Your task to perform on an android device: turn off smart reply in the gmail app Image 0: 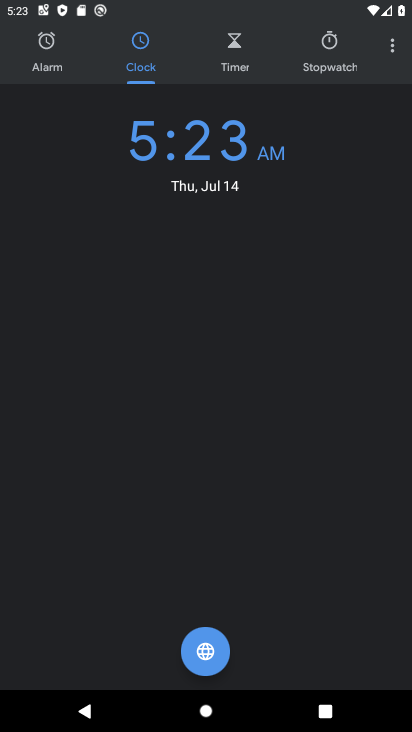
Step 0: press home button
Your task to perform on an android device: turn off smart reply in the gmail app Image 1: 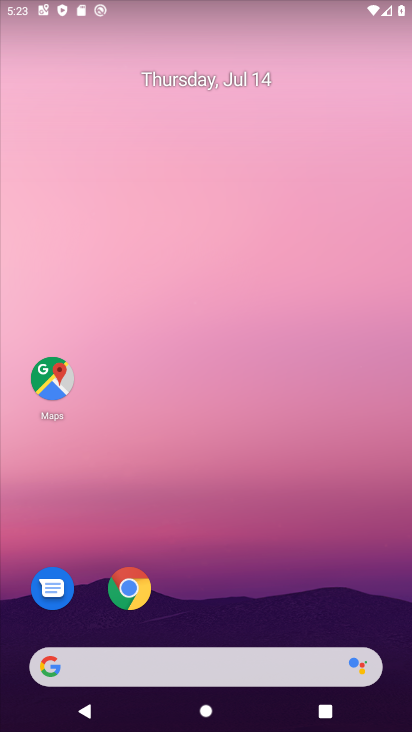
Step 1: drag from (168, 576) to (172, 286)
Your task to perform on an android device: turn off smart reply in the gmail app Image 2: 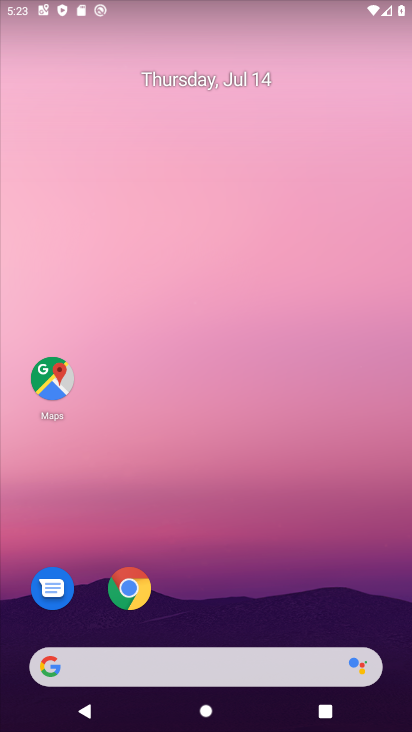
Step 2: drag from (248, 645) to (246, 296)
Your task to perform on an android device: turn off smart reply in the gmail app Image 3: 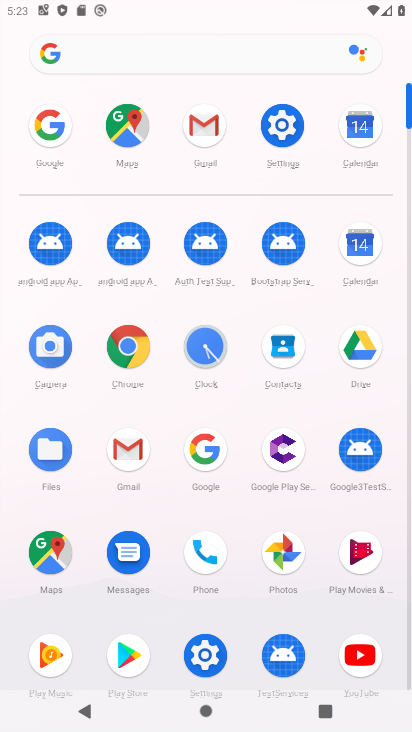
Step 3: click (197, 134)
Your task to perform on an android device: turn off smart reply in the gmail app Image 4: 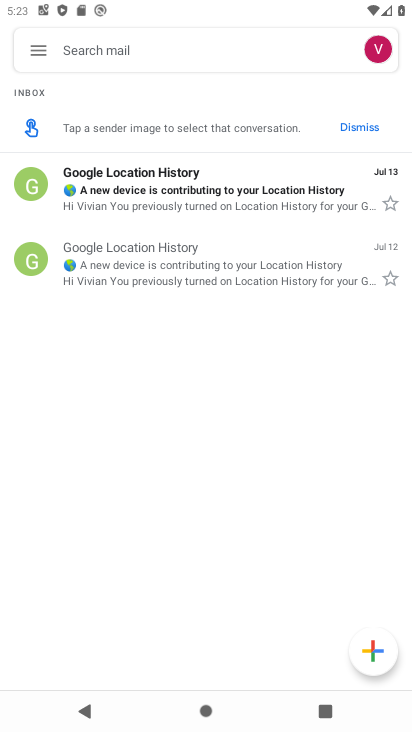
Step 4: click (41, 54)
Your task to perform on an android device: turn off smart reply in the gmail app Image 5: 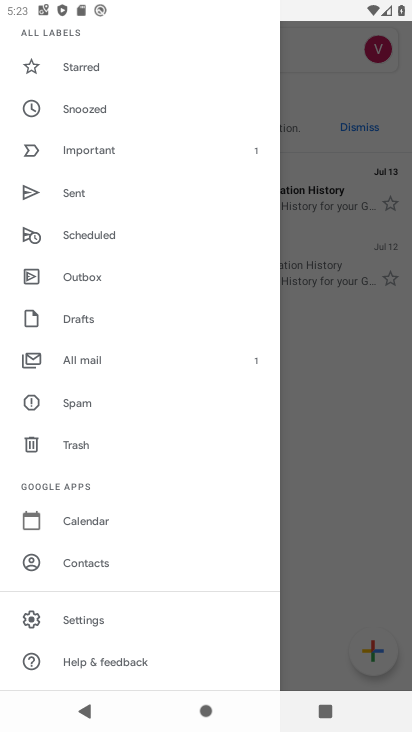
Step 5: click (91, 620)
Your task to perform on an android device: turn off smart reply in the gmail app Image 6: 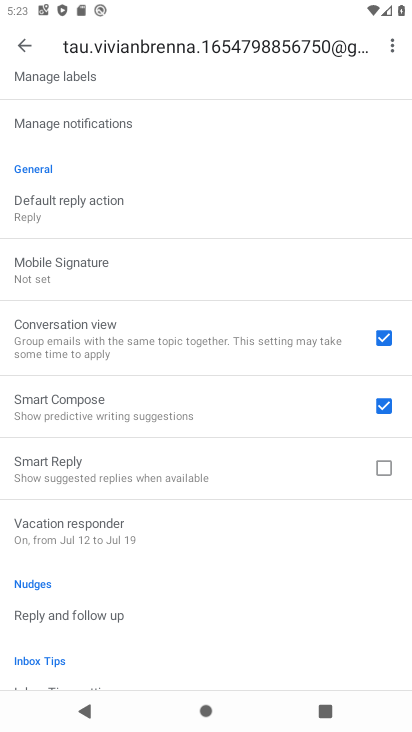
Step 6: task complete